Your task to perform on an android device: Open Amazon Image 0: 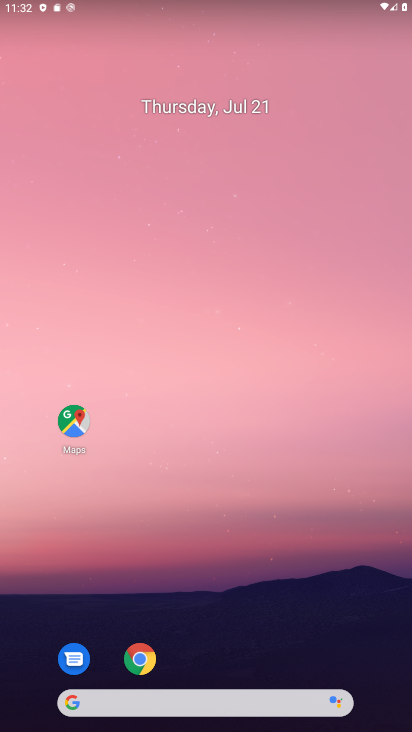
Step 0: task complete